Your task to perform on an android device: Open Youtube and go to "Your channel" Image 0: 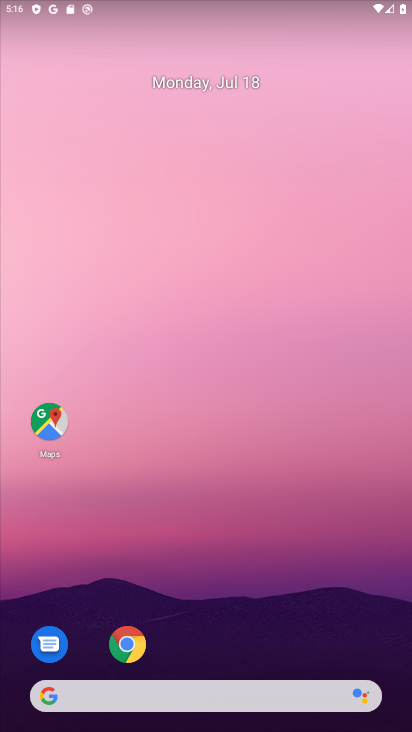
Step 0: press home button
Your task to perform on an android device: Open Youtube and go to "Your channel" Image 1: 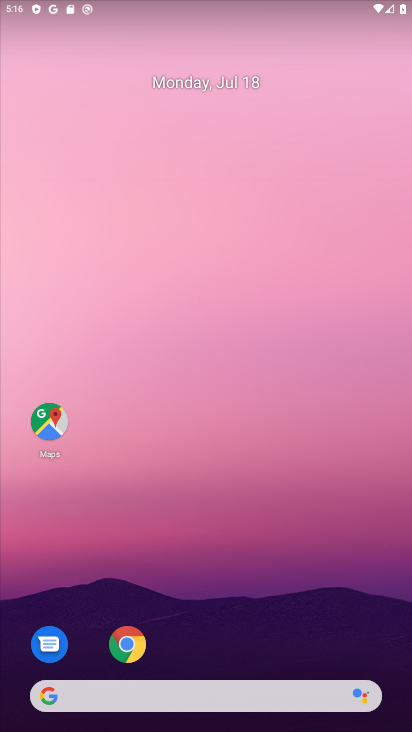
Step 1: drag from (254, 386) to (296, 162)
Your task to perform on an android device: Open Youtube and go to "Your channel" Image 2: 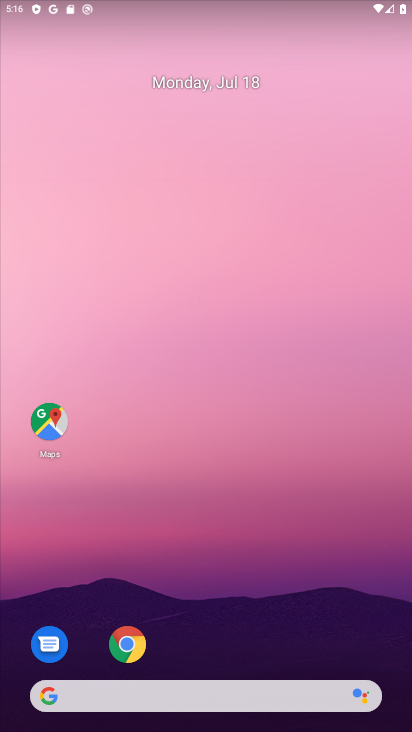
Step 2: drag from (277, 613) to (381, 76)
Your task to perform on an android device: Open Youtube and go to "Your channel" Image 3: 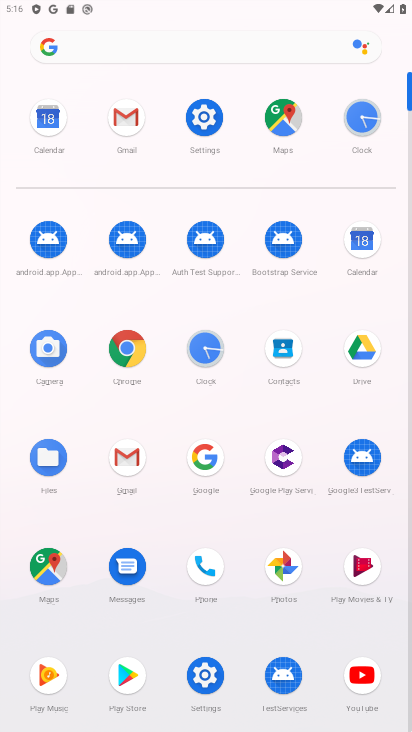
Step 3: click (347, 674)
Your task to perform on an android device: Open Youtube and go to "Your channel" Image 4: 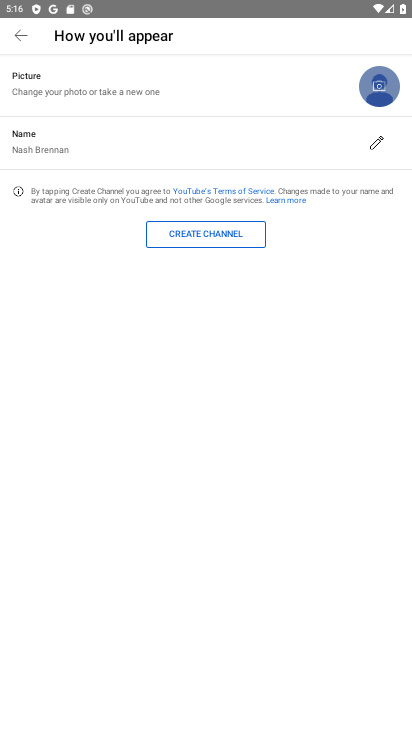
Step 4: click (15, 26)
Your task to perform on an android device: Open Youtube and go to "Your channel" Image 5: 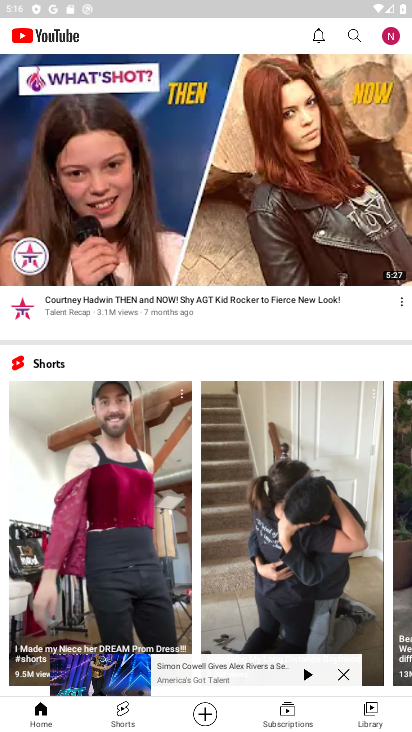
Step 5: click (392, 38)
Your task to perform on an android device: Open Youtube and go to "Your channel" Image 6: 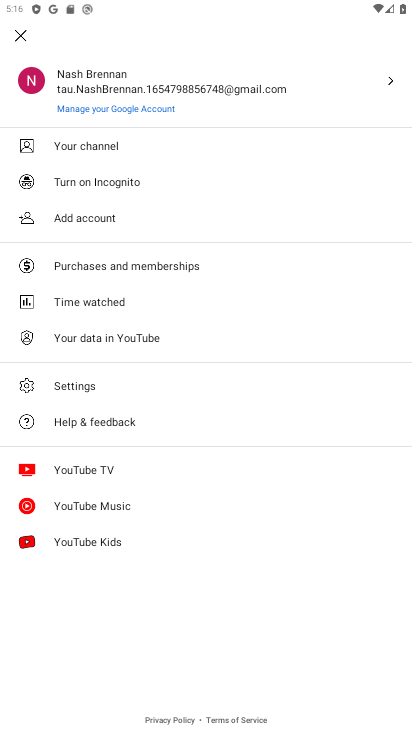
Step 6: click (105, 136)
Your task to perform on an android device: Open Youtube and go to "Your channel" Image 7: 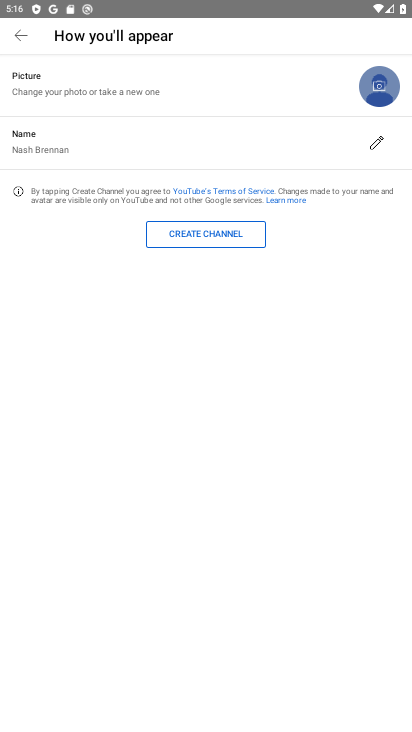
Step 7: task complete